Your task to perform on an android device: move an email to a new category in the gmail app Image 0: 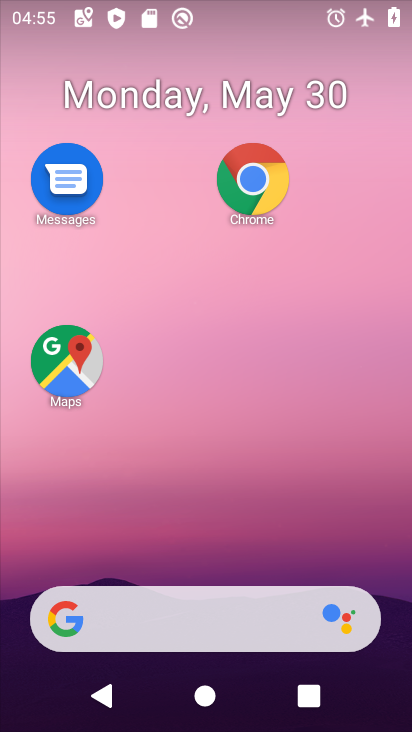
Step 0: drag from (160, 259) to (163, 15)
Your task to perform on an android device: move an email to a new category in the gmail app Image 1: 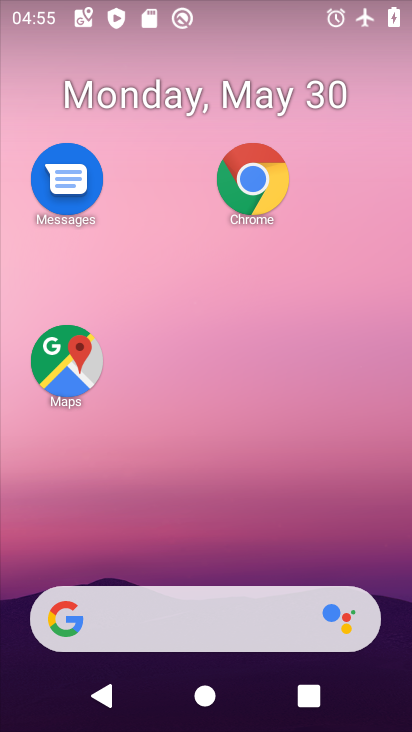
Step 1: drag from (163, 544) to (184, 123)
Your task to perform on an android device: move an email to a new category in the gmail app Image 2: 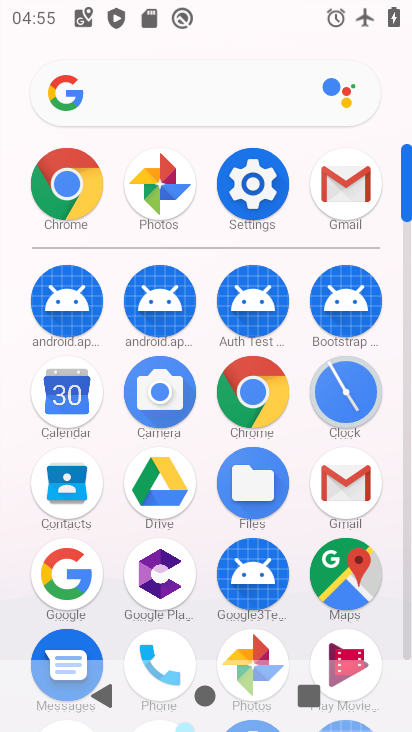
Step 2: click (349, 190)
Your task to perform on an android device: move an email to a new category in the gmail app Image 3: 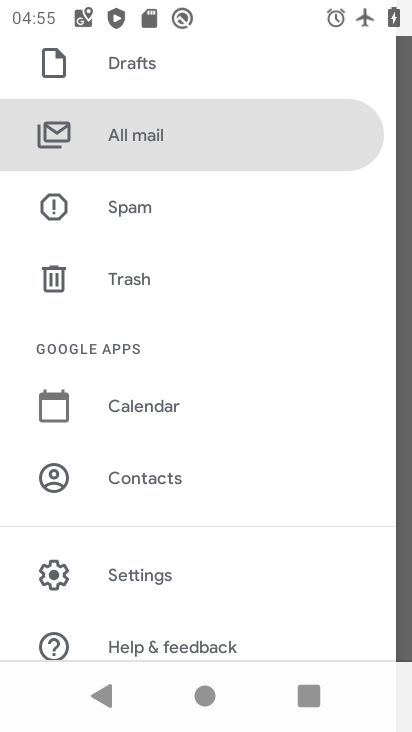
Step 3: drag from (173, 295) to (138, 603)
Your task to perform on an android device: move an email to a new category in the gmail app Image 4: 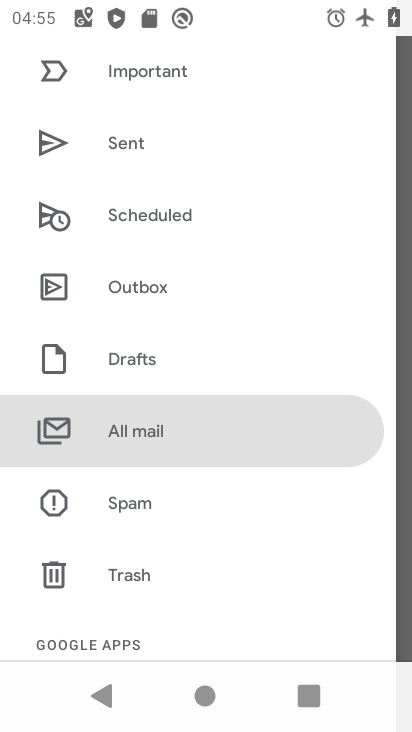
Step 4: drag from (147, 309) to (106, 677)
Your task to perform on an android device: move an email to a new category in the gmail app Image 5: 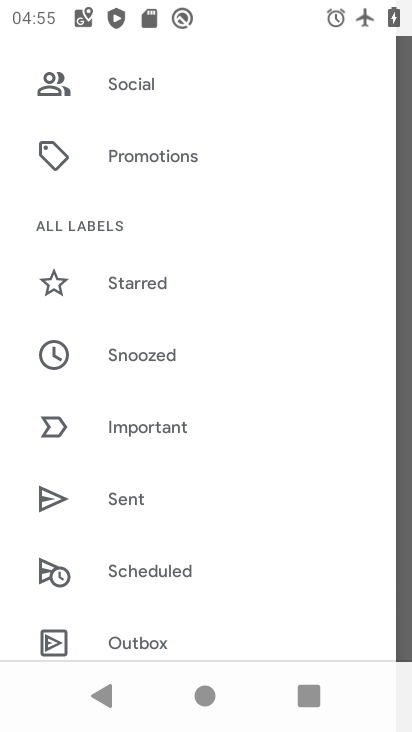
Step 5: click (138, 689)
Your task to perform on an android device: move an email to a new category in the gmail app Image 6: 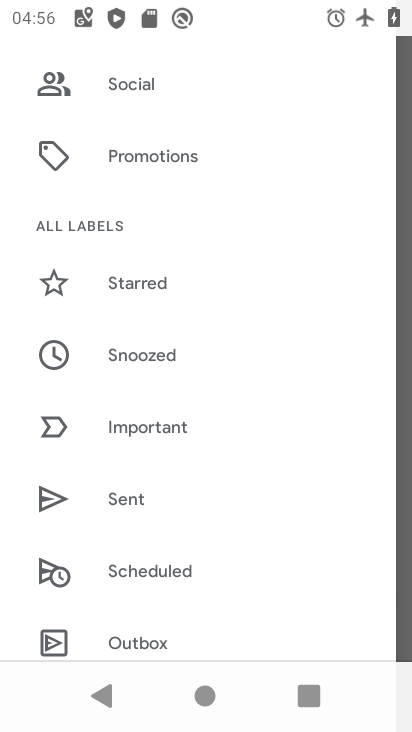
Step 6: drag from (81, 252) to (71, 598)
Your task to perform on an android device: move an email to a new category in the gmail app Image 7: 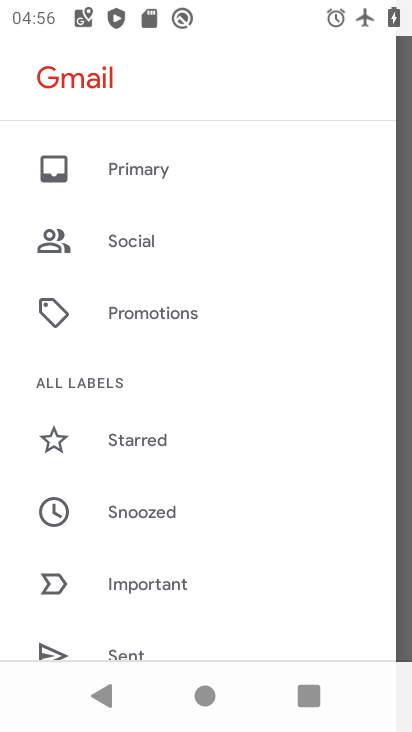
Step 7: click (147, 230)
Your task to perform on an android device: move an email to a new category in the gmail app Image 8: 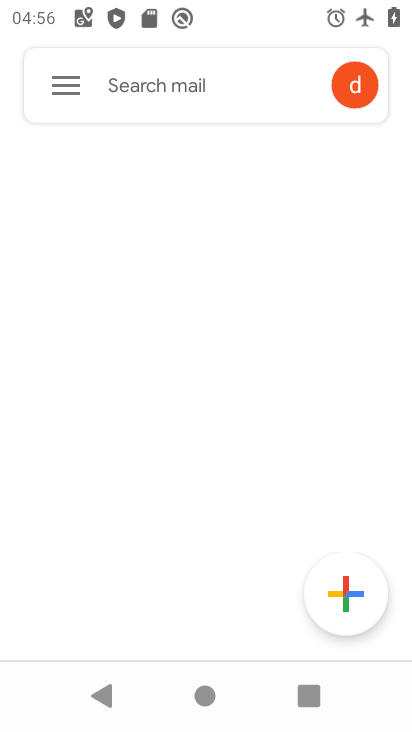
Step 8: drag from (144, 617) to (242, 217)
Your task to perform on an android device: move an email to a new category in the gmail app Image 9: 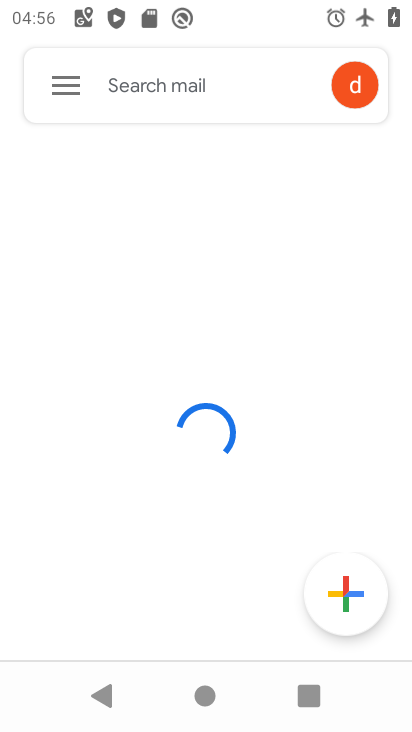
Step 9: click (56, 85)
Your task to perform on an android device: move an email to a new category in the gmail app Image 10: 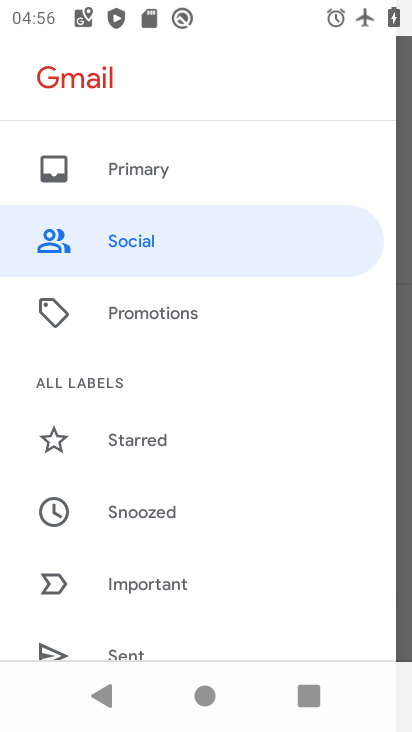
Step 10: drag from (108, 554) to (118, 209)
Your task to perform on an android device: move an email to a new category in the gmail app Image 11: 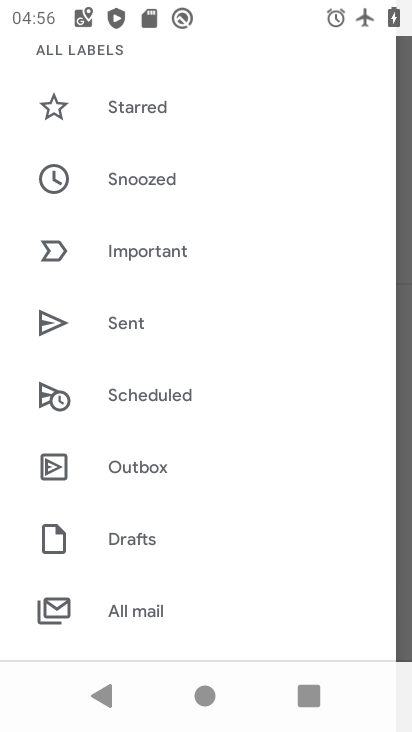
Step 11: click (125, 609)
Your task to perform on an android device: move an email to a new category in the gmail app Image 12: 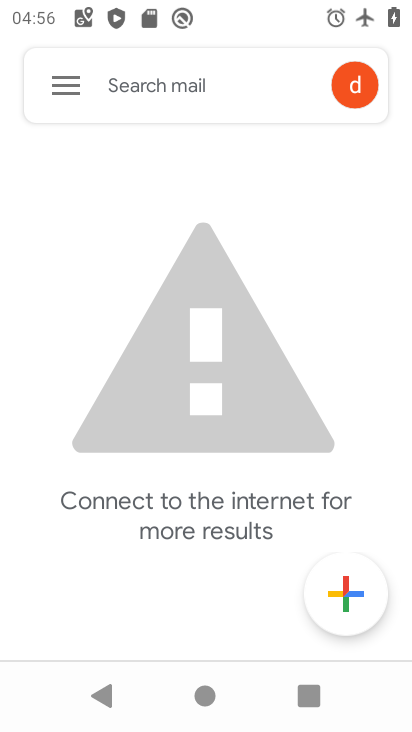
Step 12: task complete